Your task to perform on an android device: Show me the alarms in the clock app Image 0: 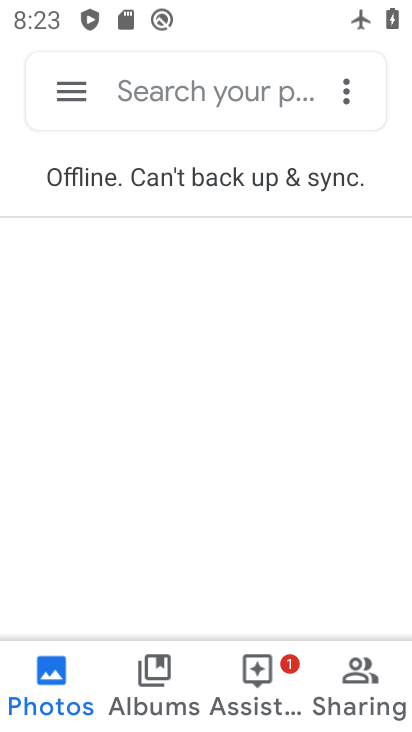
Step 0: press back button
Your task to perform on an android device: Show me the alarms in the clock app Image 1: 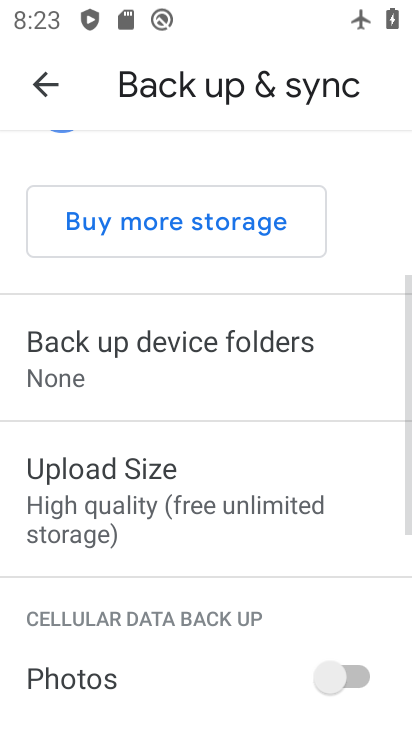
Step 1: press home button
Your task to perform on an android device: Show me the alarms in the clock app Image 2: 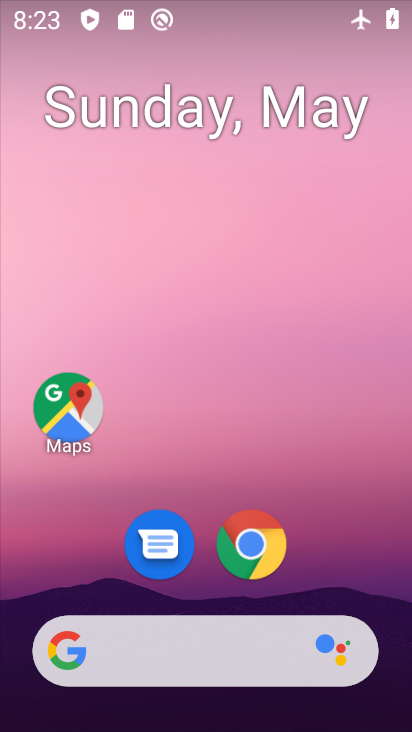
Step 2: drag from (346, 592) to (260, 1)
Your task to perform on an android device: Show me the alarms in the clock app Image 3: 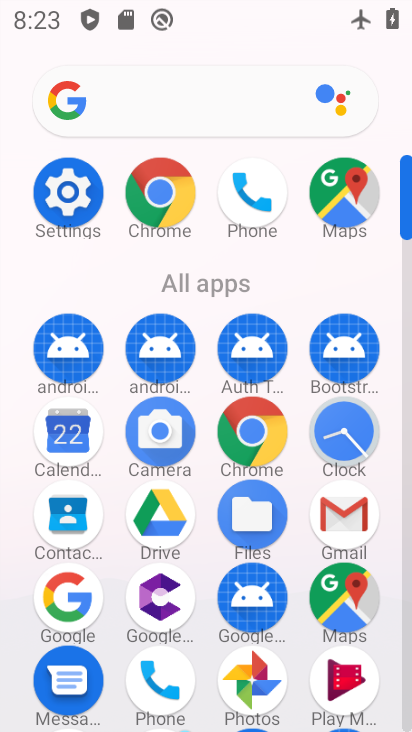
Step 3: drag from (20, 580) to (25, 264)
Your task to perform on an android device: Show me the alarms in the clock app Image 4: 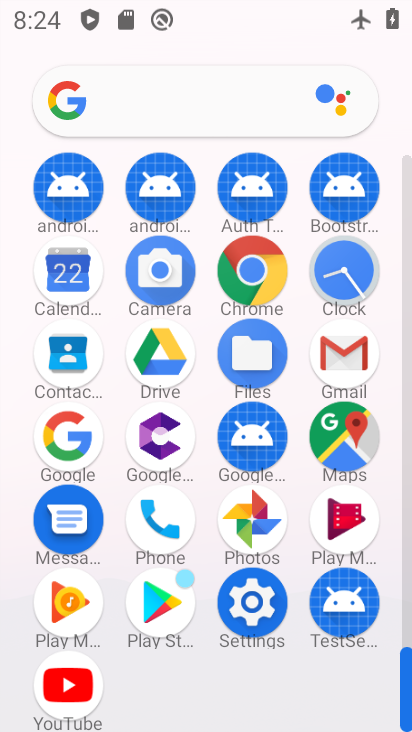
Step 4: click (343, 268)
Your task to perform on an android device: Show me the alarms in the clock app Image 5: 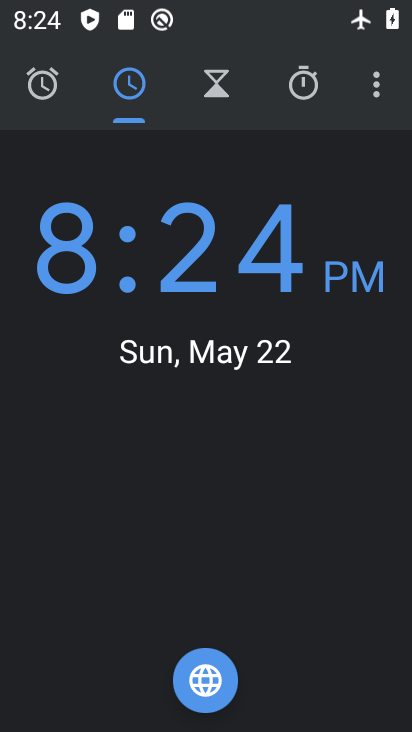
Step 5: click (60, 95)
Your task to perform on an android device: Show me the alarms in the clock app Image 6: 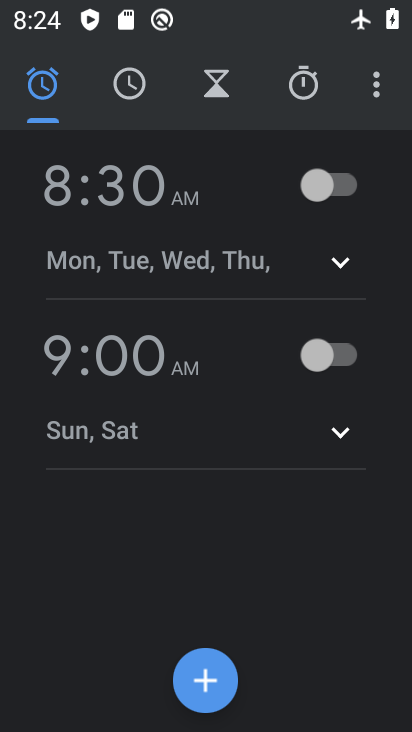
Step 6: task complete